Your task to perform on an android device: What's on the menu at Olive Garden? Image 0: 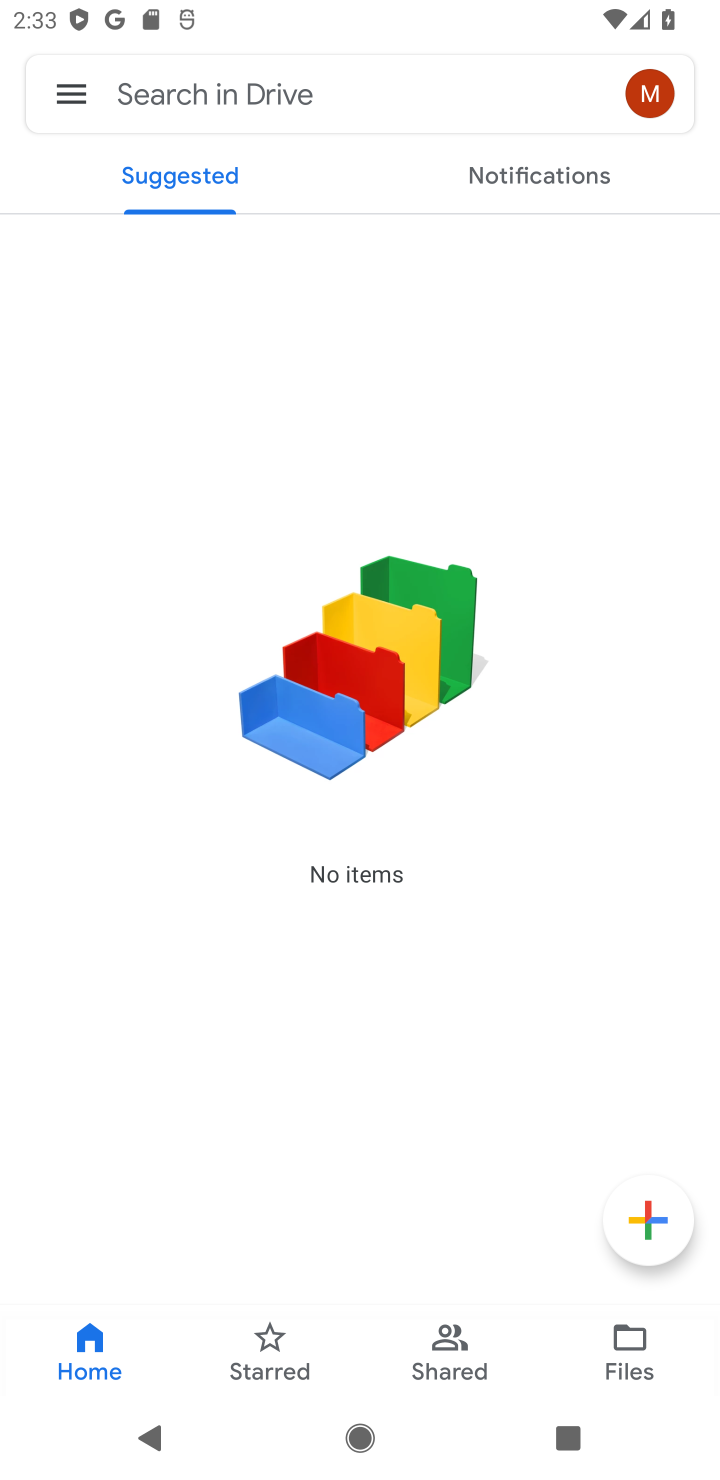
Step 0: press home button
Your task to perform on an android device: What's on the menu at Olive Garden? Image 1: 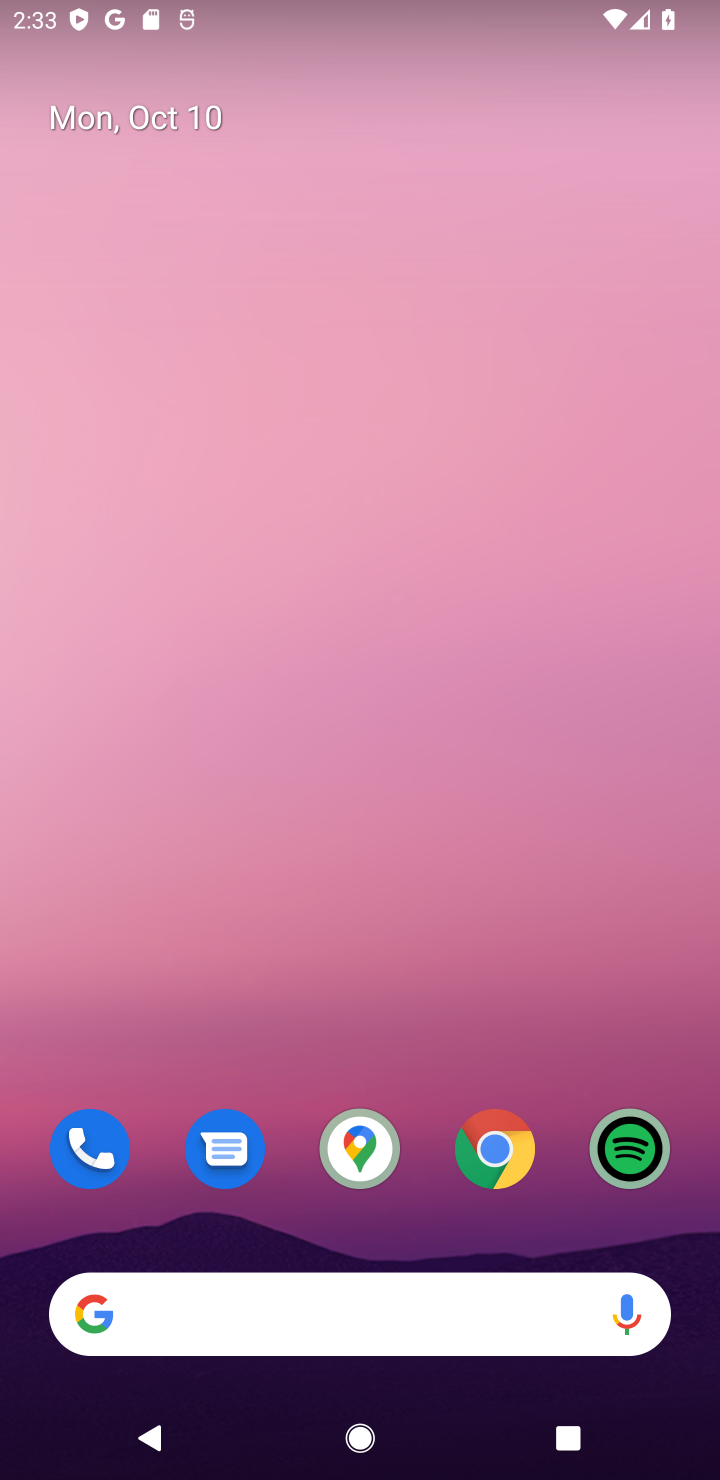
Step 1: click (279, 1346)
Your task to perform on an android device: What's on the menu at Olive Garden? Image 2: 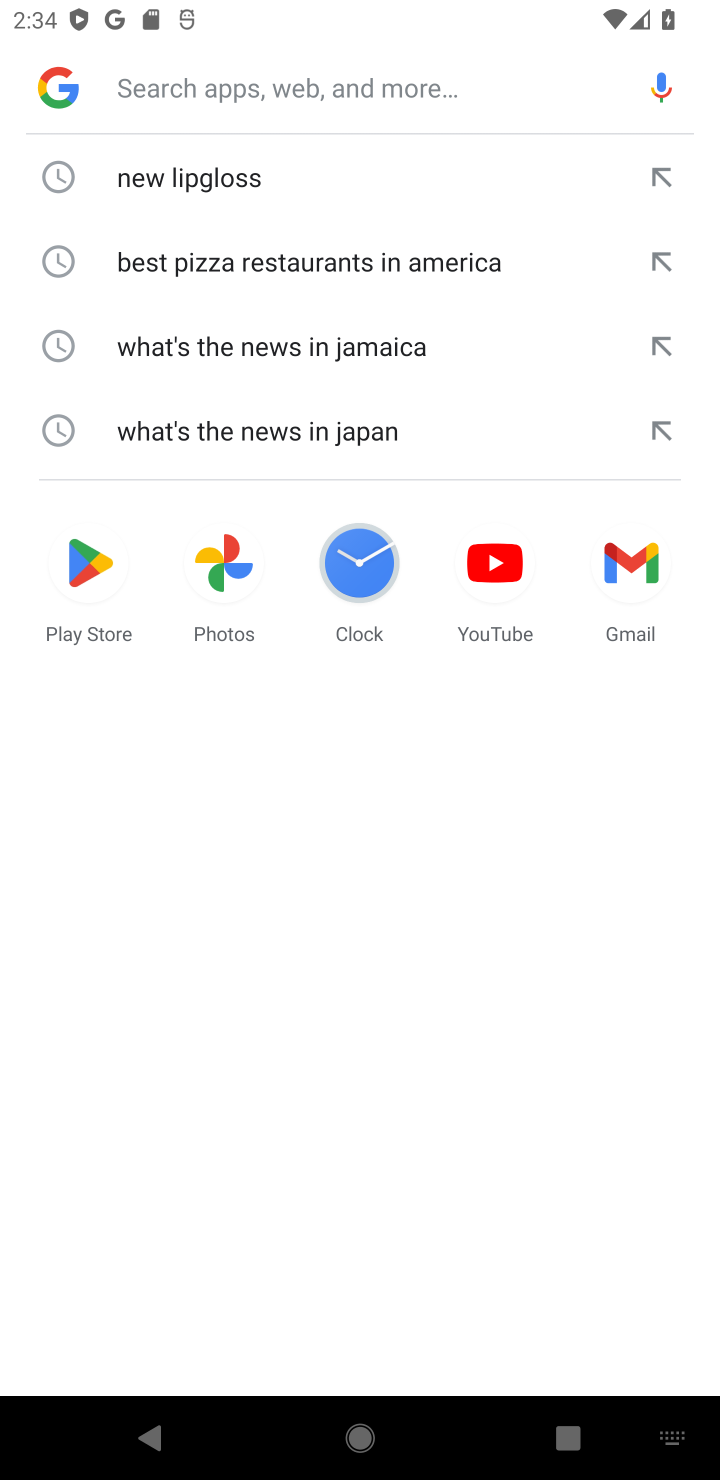
Step 2: type " menu at Olive Garden"
Your task to perform on an android device: What's on the menu at Olive Garden? Image 3: 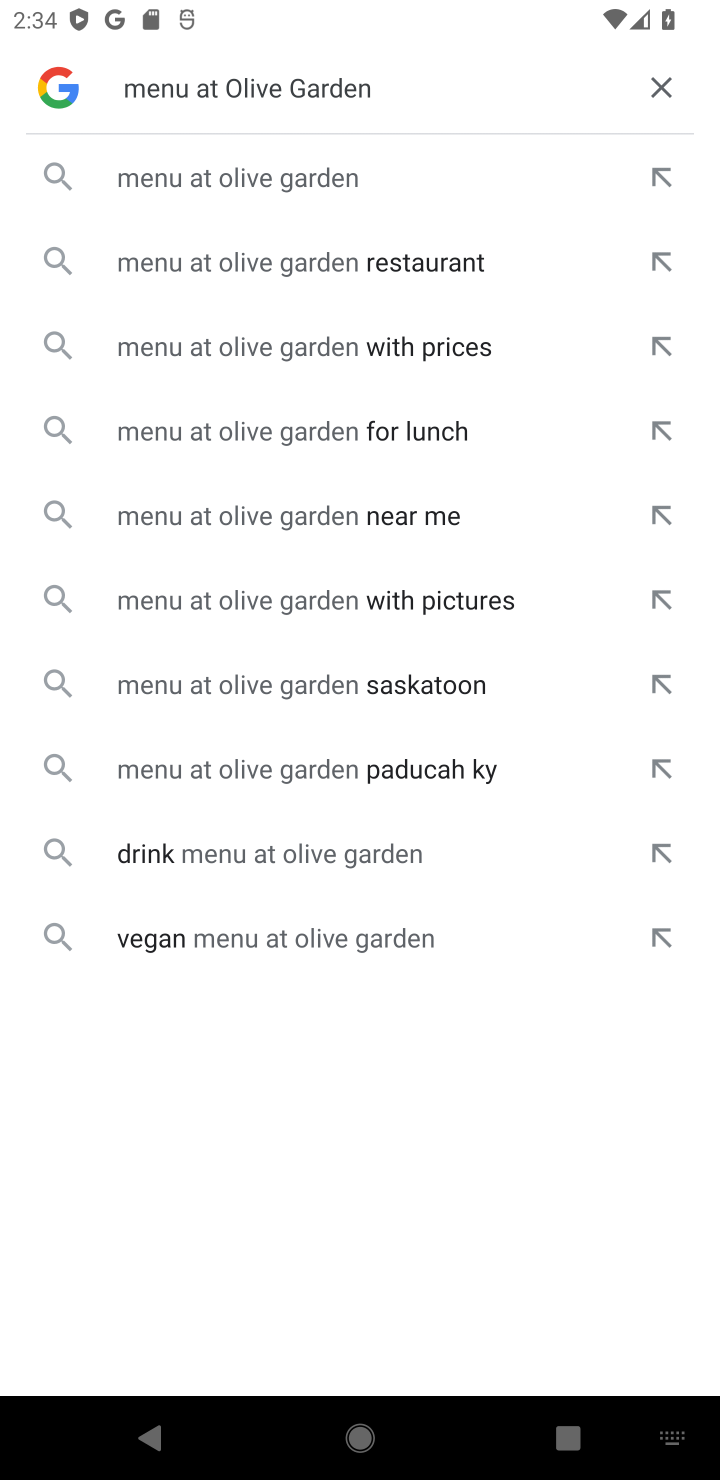
Step 3: click (243, 184)
Your task to perform on an android device: What's on the menu at Olive Garden? Image 4: 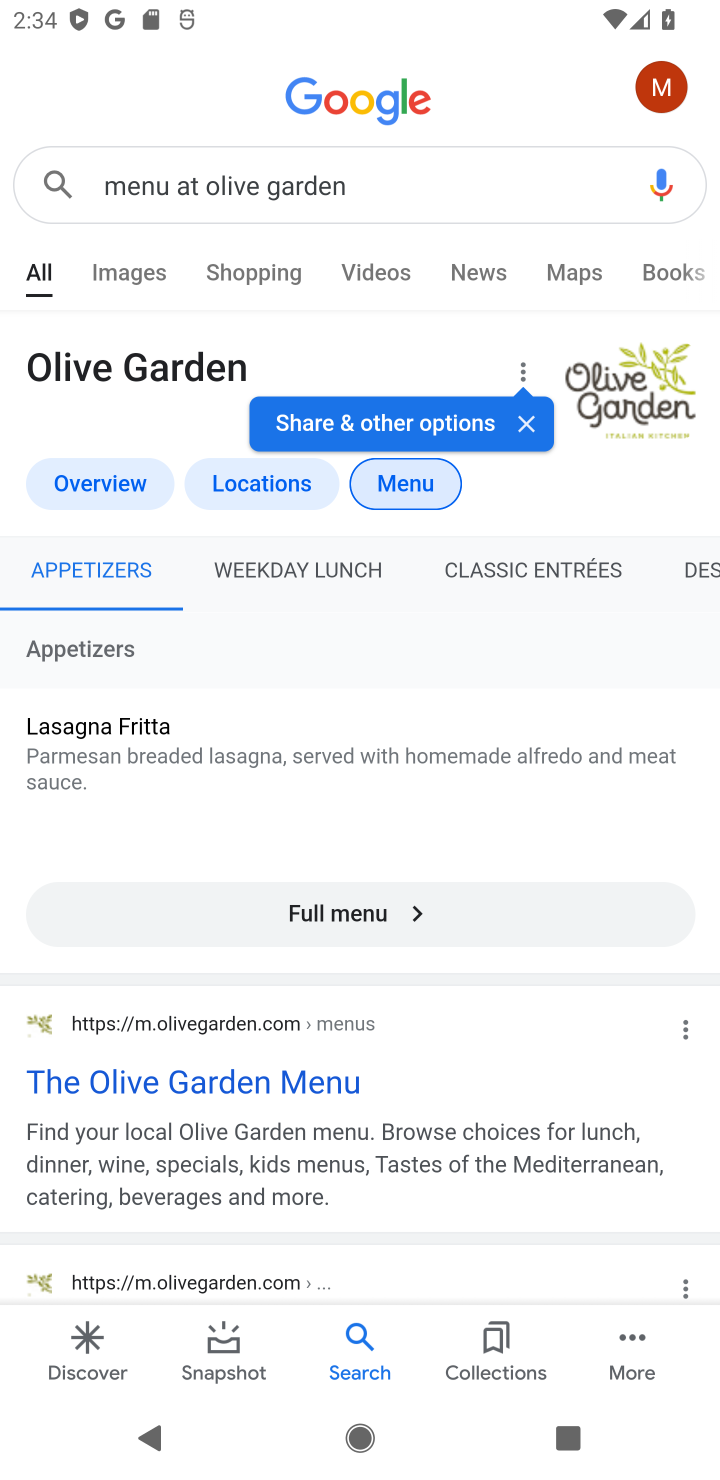
Step 4: task complete